Your task to perform on an android device: open app "Reddit" (install if not already installed) and go to login screen Image 0: 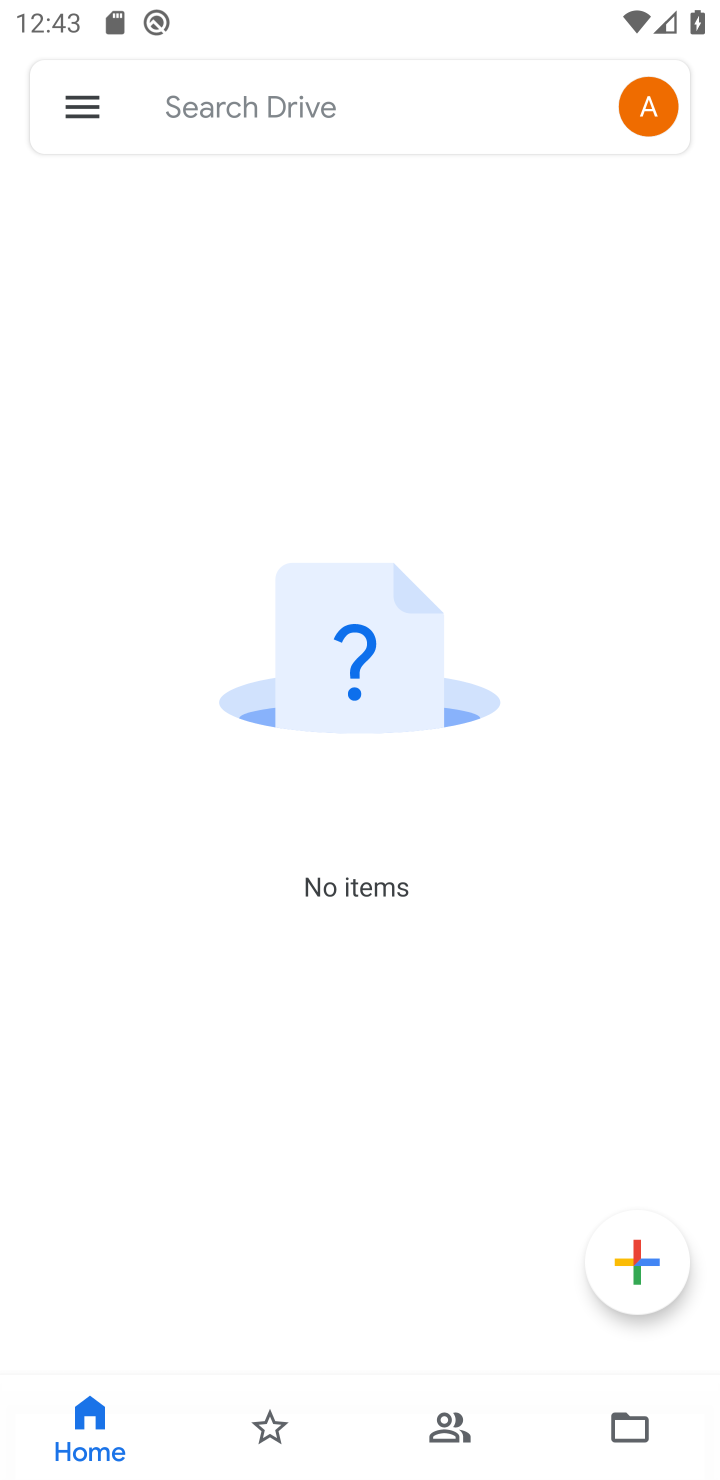
Step 0: press home button
Your task to perform on an android device: open app "Reddit" (install if not already installed) and go to login screen Image 1: 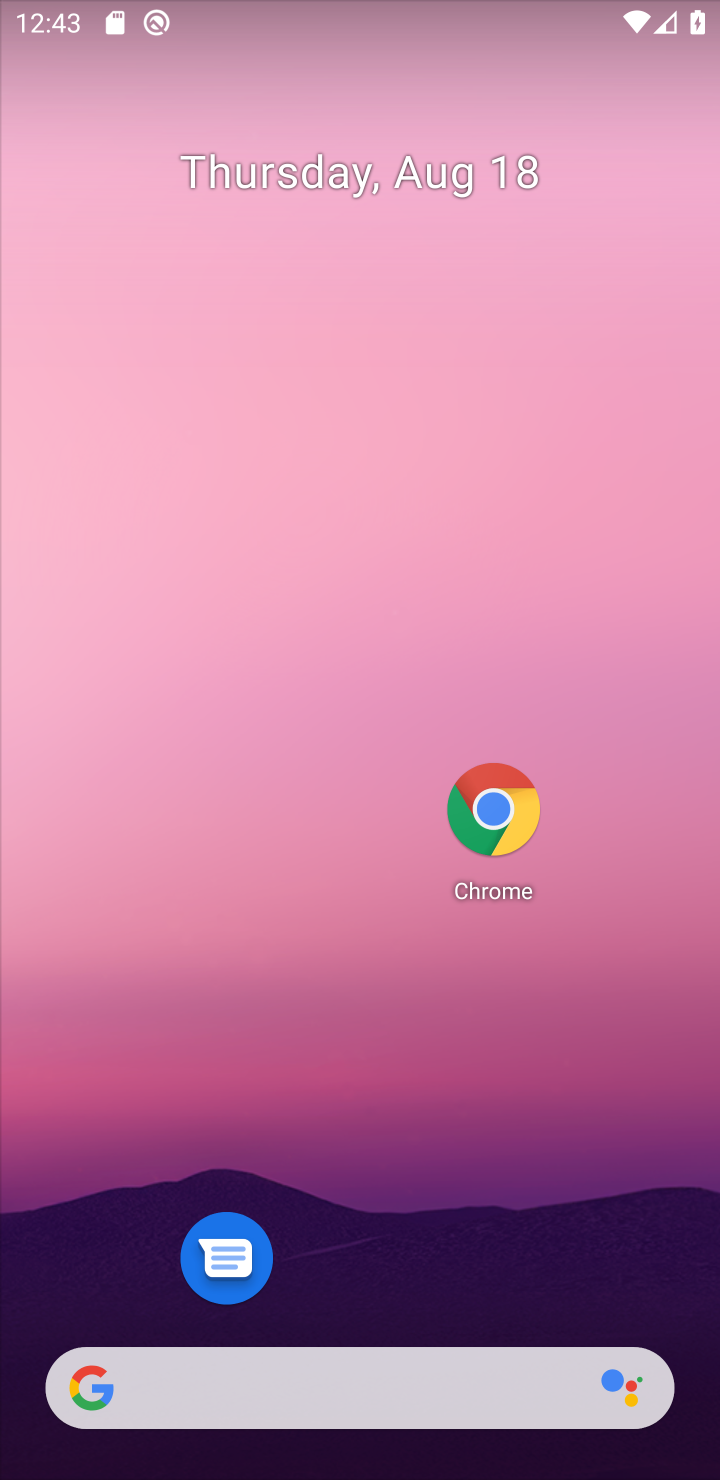
Step 1: drag from (358, 1140) to (374, 231)
Your task to perform on an android device: open app "Reddit" (install if not already installed) and go to login screen Image 2: 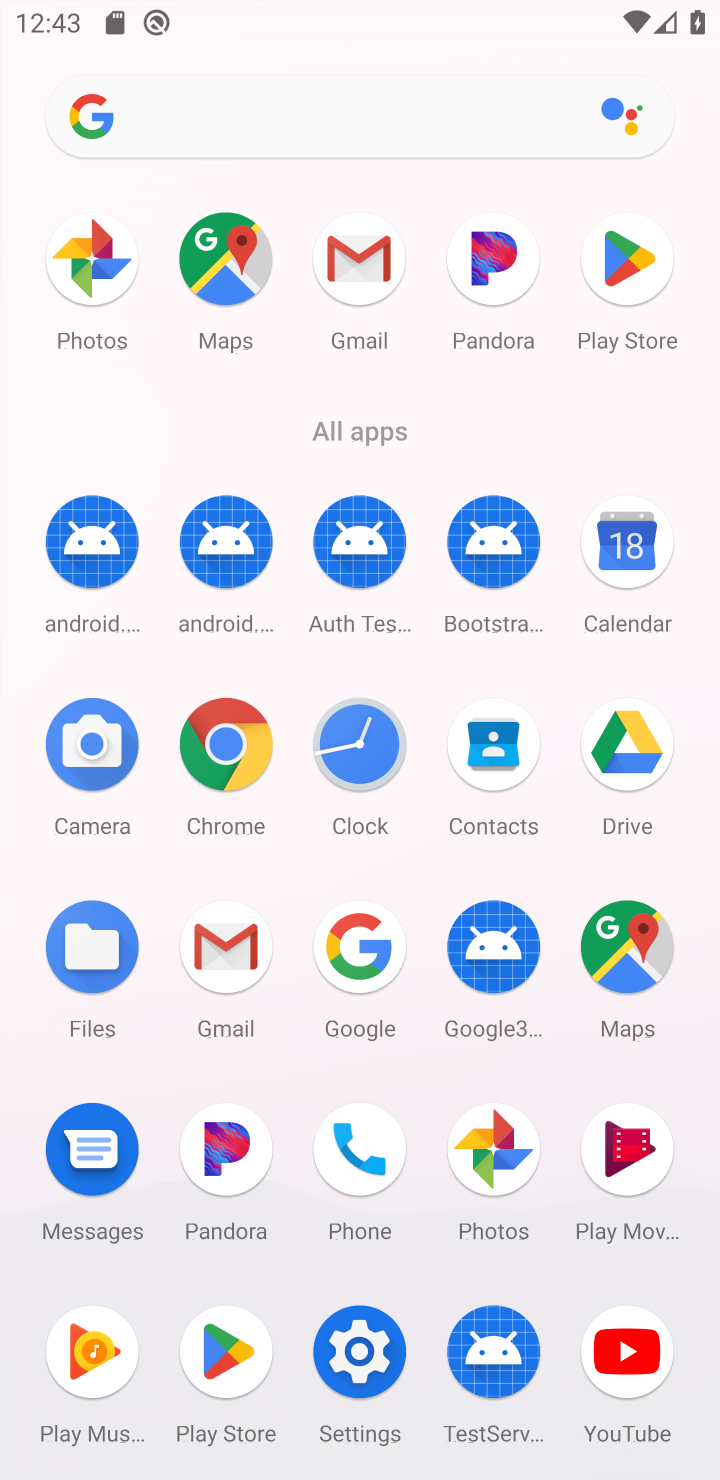
Step 2: click (222, 759)
Your task to perform on an android device: open app "Reddit" (install if not already installed) and go to login screen Image 3: 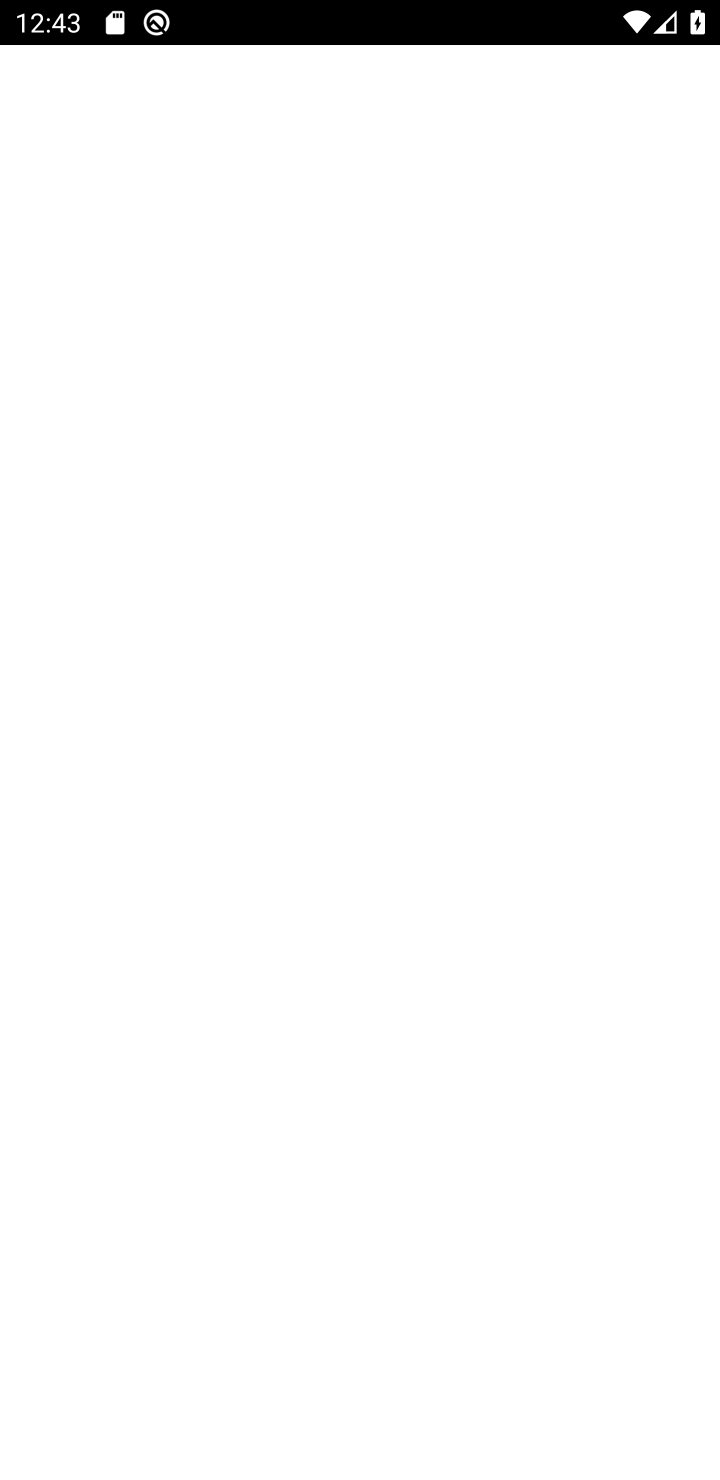
Step 3: press home button
Your task to perform on an android device: open app "Reddit" (install if not already installed) and go to login screen Image 4: 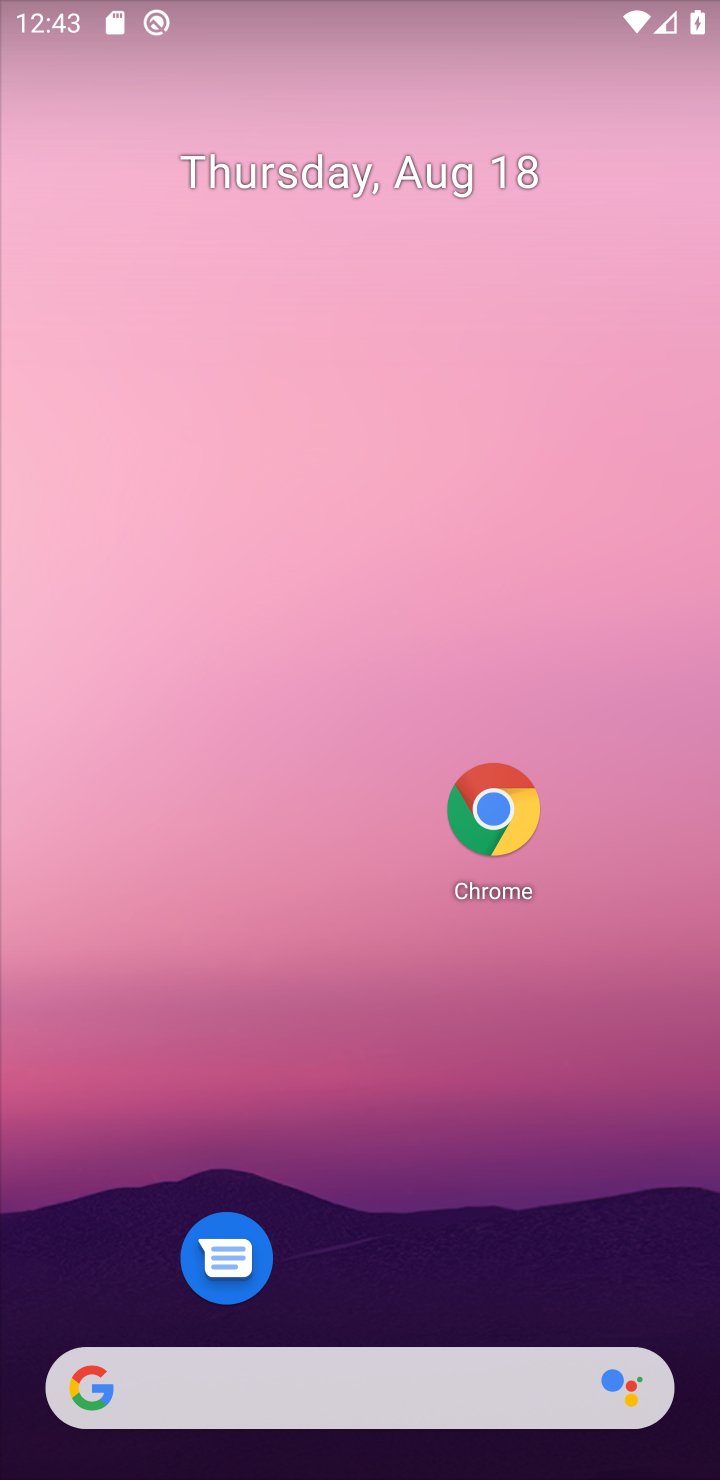
Step 4: drag from (405, 1093) to (402, 188)
Your task to perform on an android device: open app "Reddit" (install if not already installed) and go to login screen Image 5: 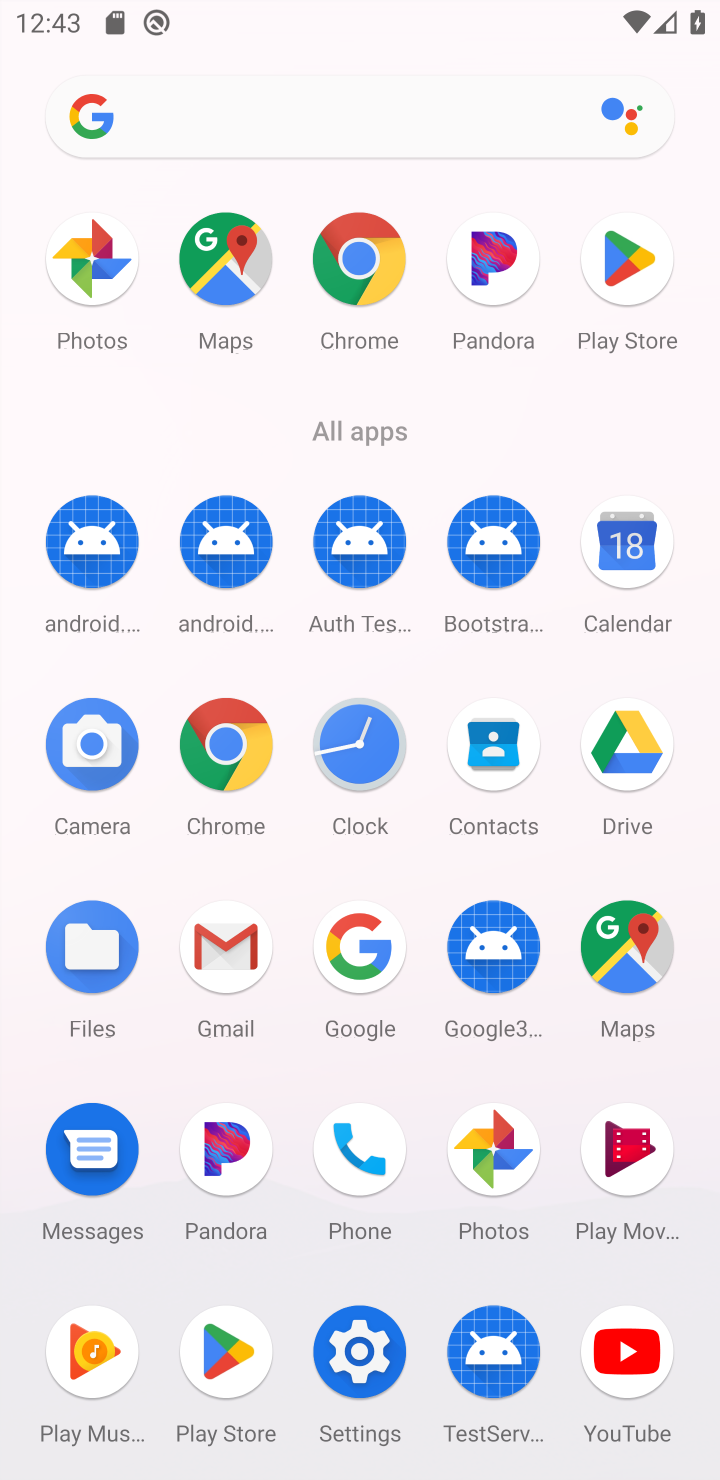
Step 5: click (632, 296)
Your task to perform on an android device: open app "Reddit" (install if not already installed) and go to login screen Image 6: 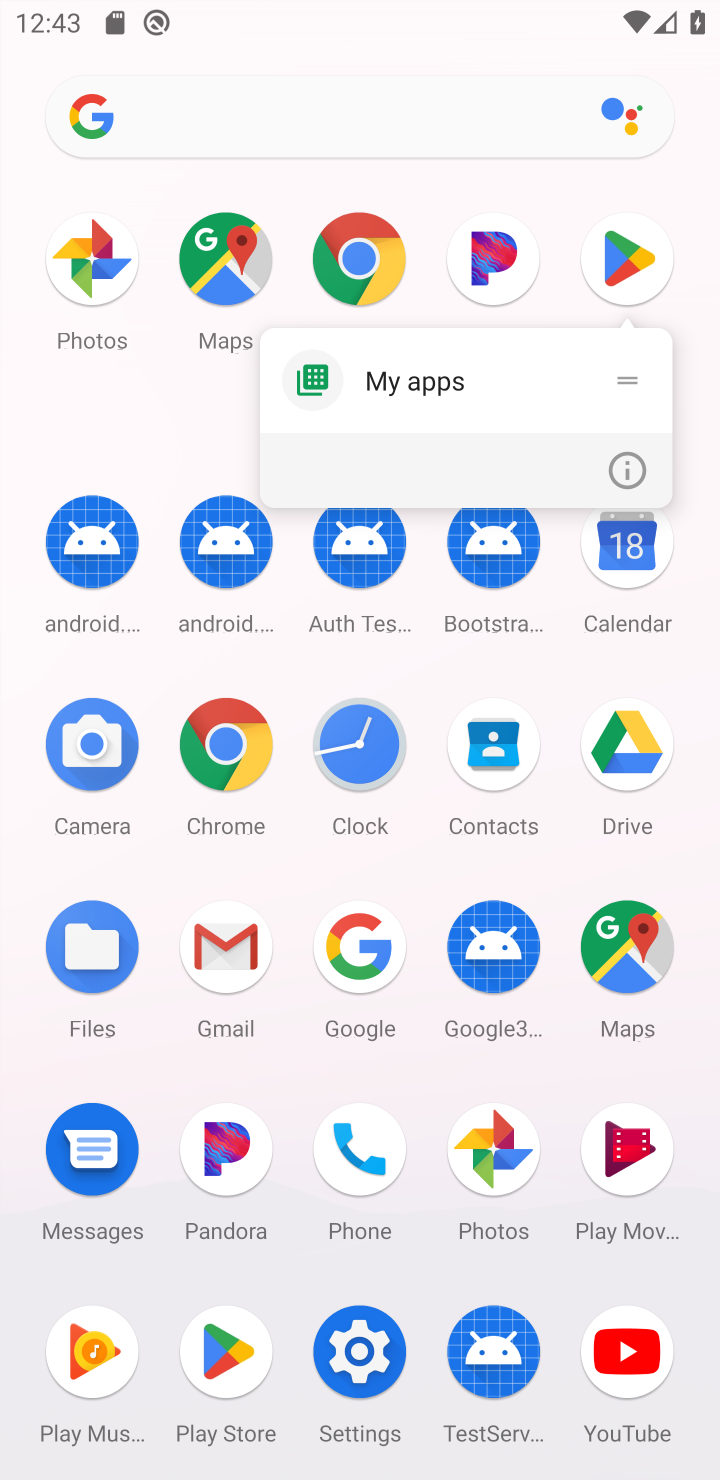
Step 6: click (612, 251)
Your task to perform on an android device: open app "Reddit" (install if not already installed) and go to login screen Image 7: 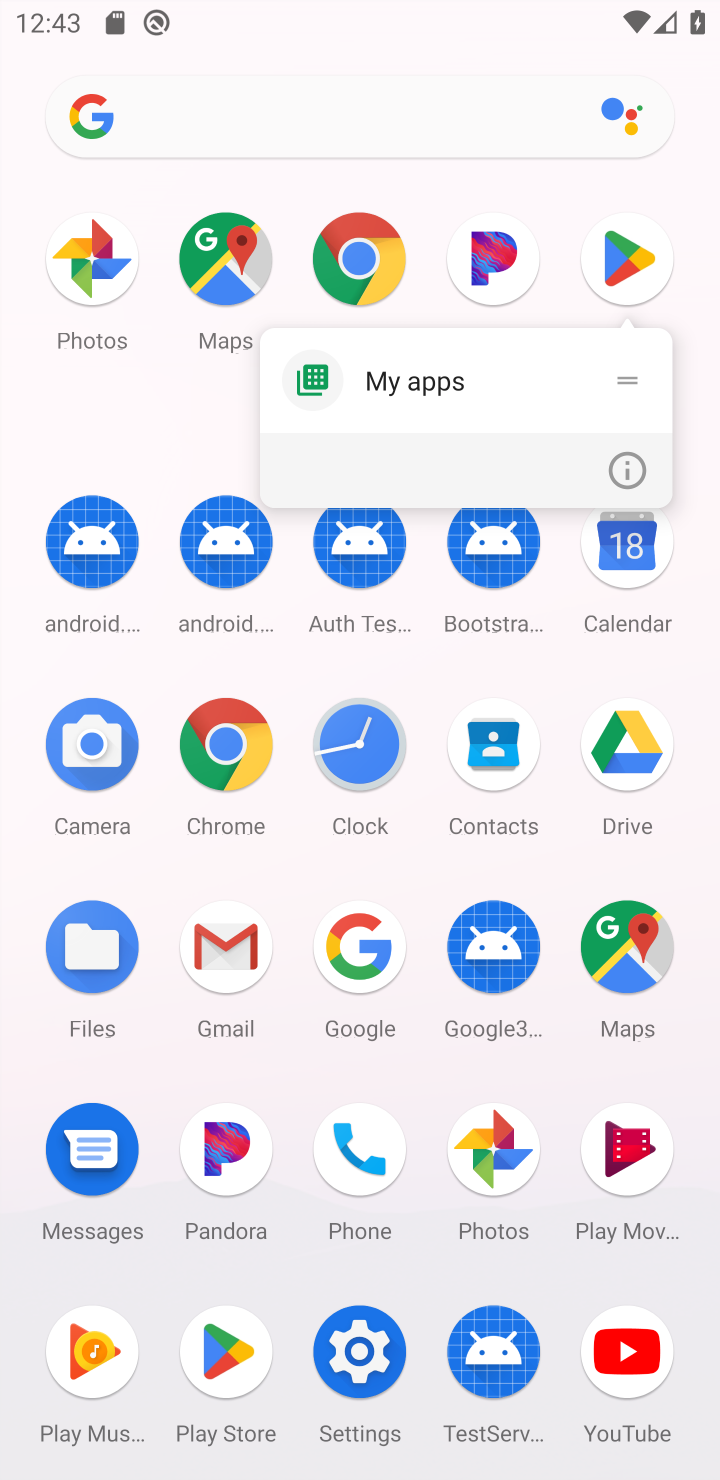
Step 7: click (206, 1355)
Your task to perform on an android device: open app "Reddit" (install if not already installed) and go to login screen Image 8: 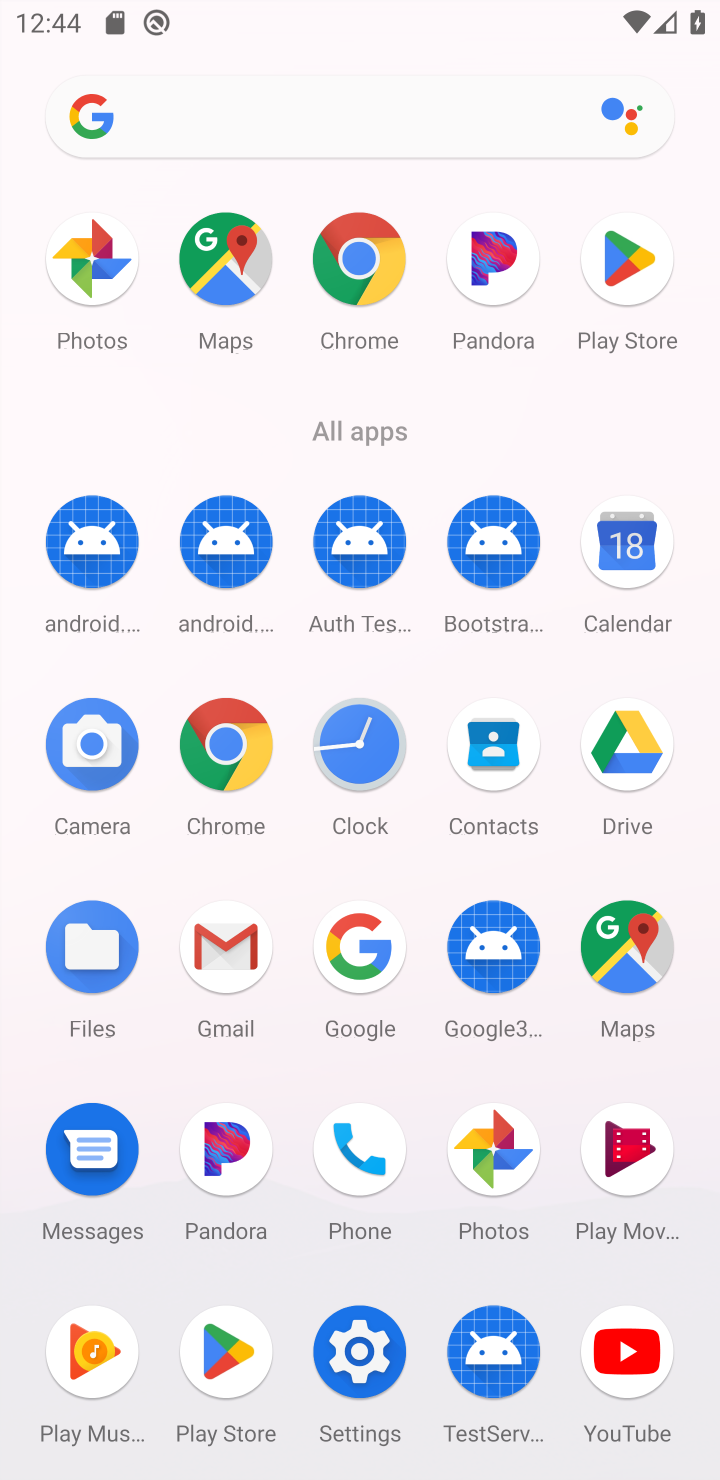
Step 8: click (232, 1348)
Your task to perform on an android device: open app "Reddit" (install if not already installed) and go to login screen Image 9: 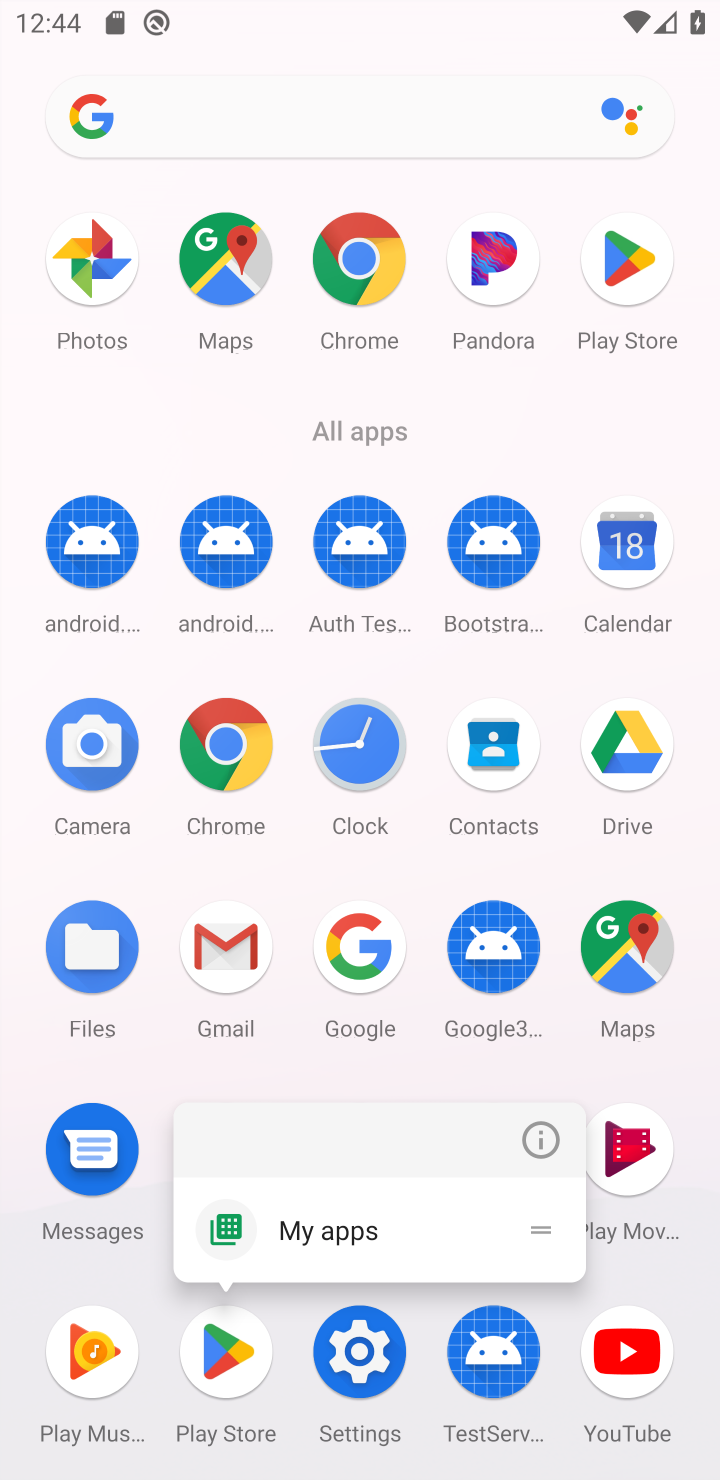
Step 9: click (618, 237)
Your task to perform on an android device: open app "Reddit" (install if not already installed) and go to login screen Image 10: 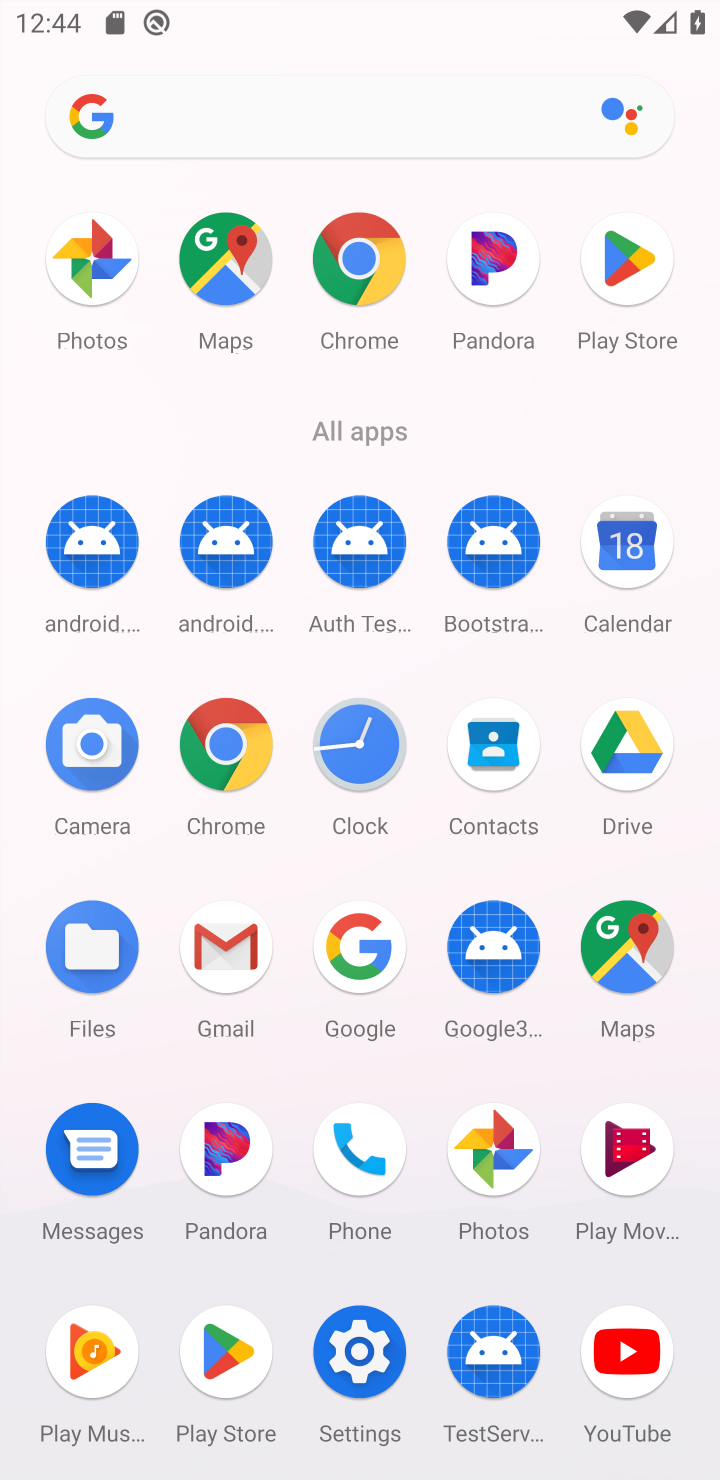
Step 10: click (631, 255)
Your task to perform on an android device: open app "Reddit" (install if not already installed) and go to login screen Image 11: 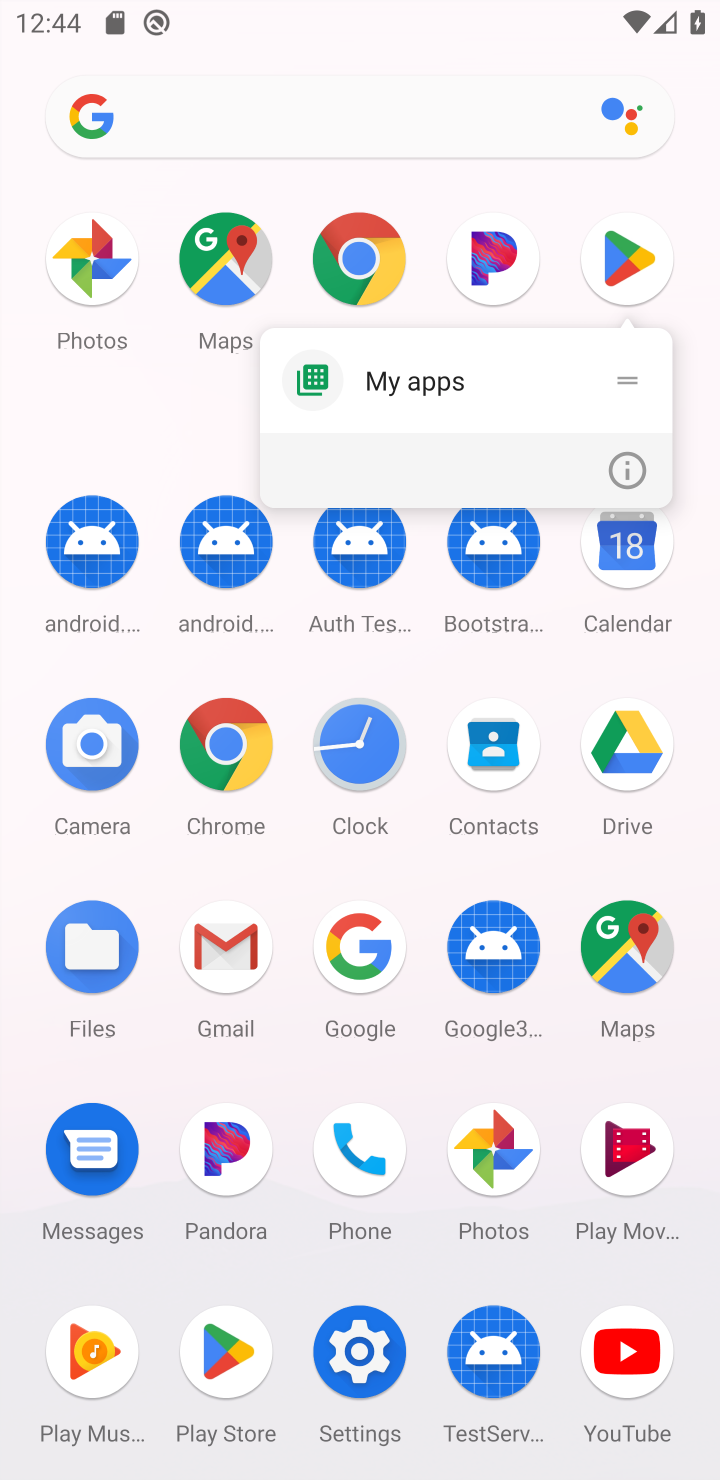
Step 11: click (639, 295)
Your task to perform on an android device: open app "Reddit" (install if not already installed) and go to login screen Image 12: 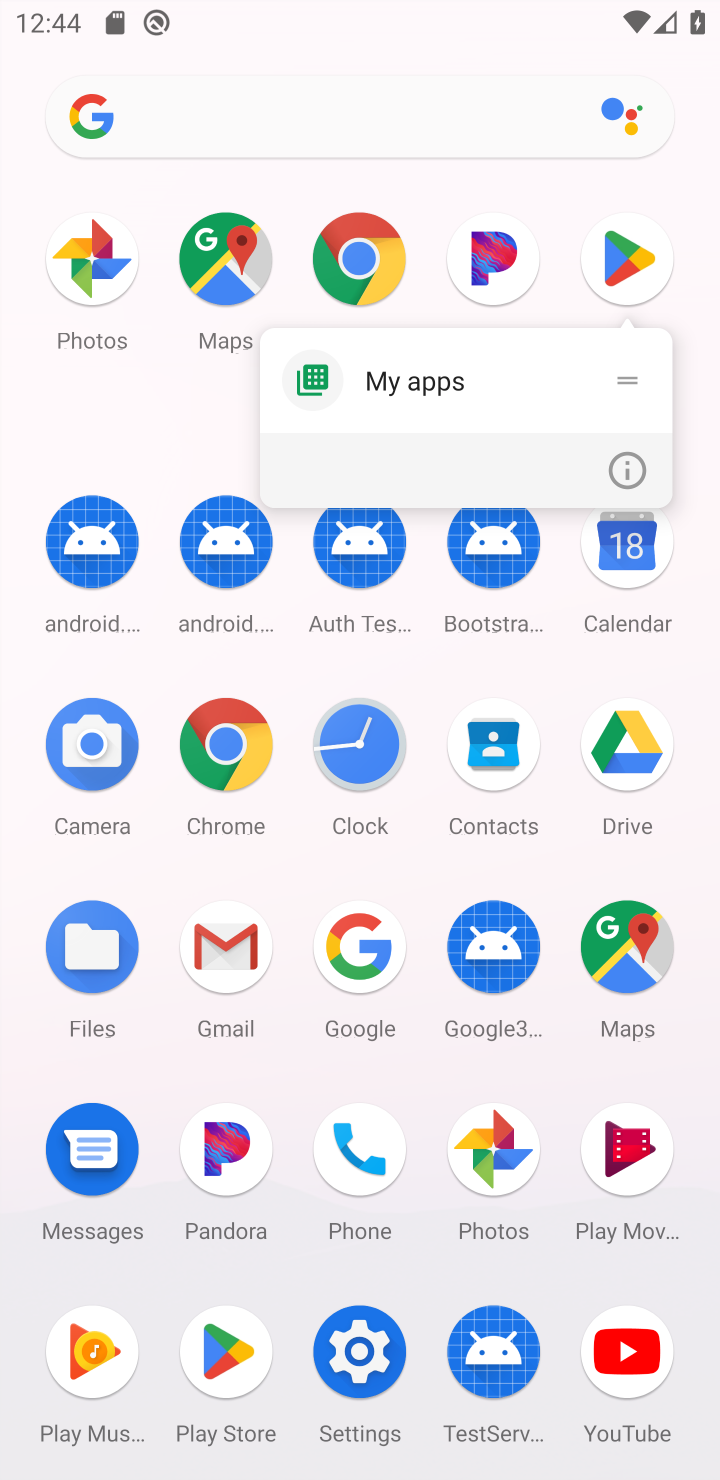
Step 12: click (639, 285)
Your task to perform on an android device: open app "Reddit" (install if not already installed) and go to login screen Image 13: 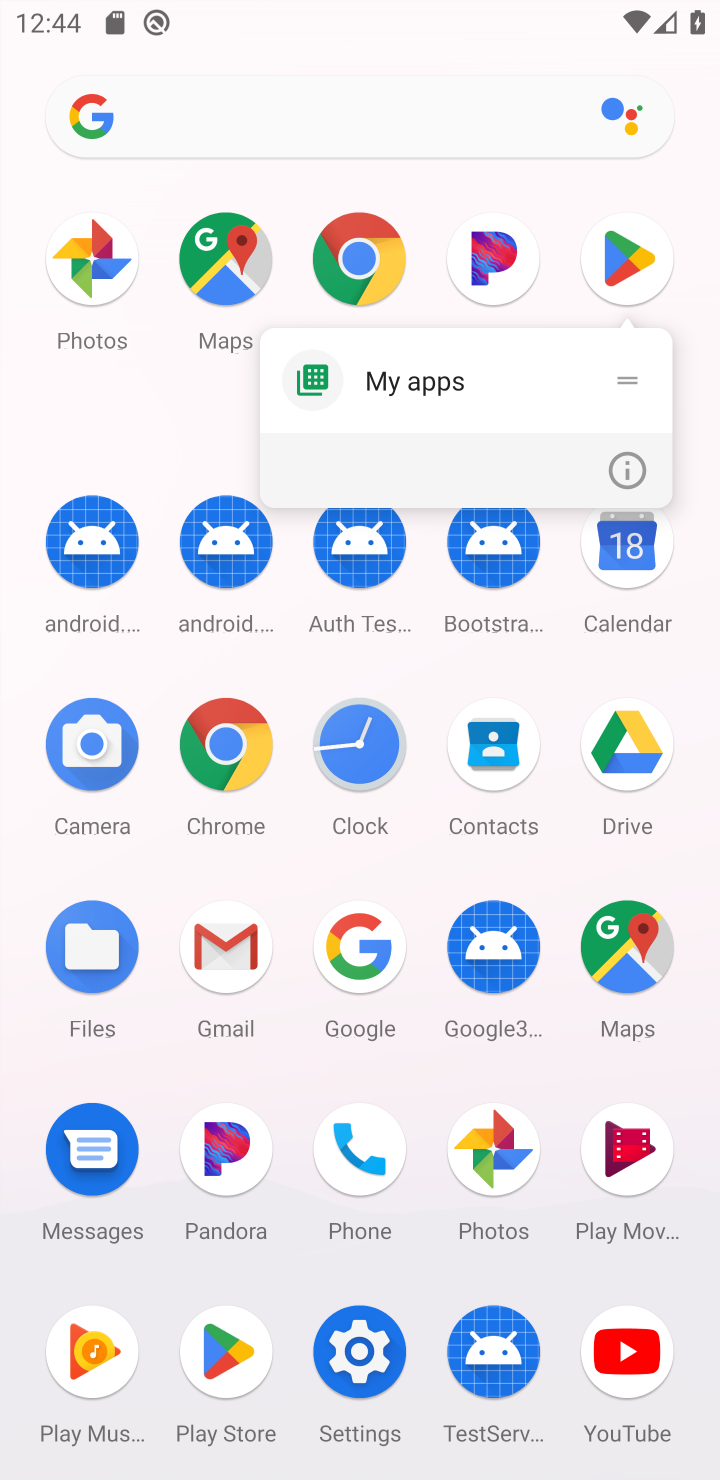
Step 13: click (636, 245)
Your task to perform on an android device: open app "Reddit" (install if not already installed) and go to login screen Image 14: 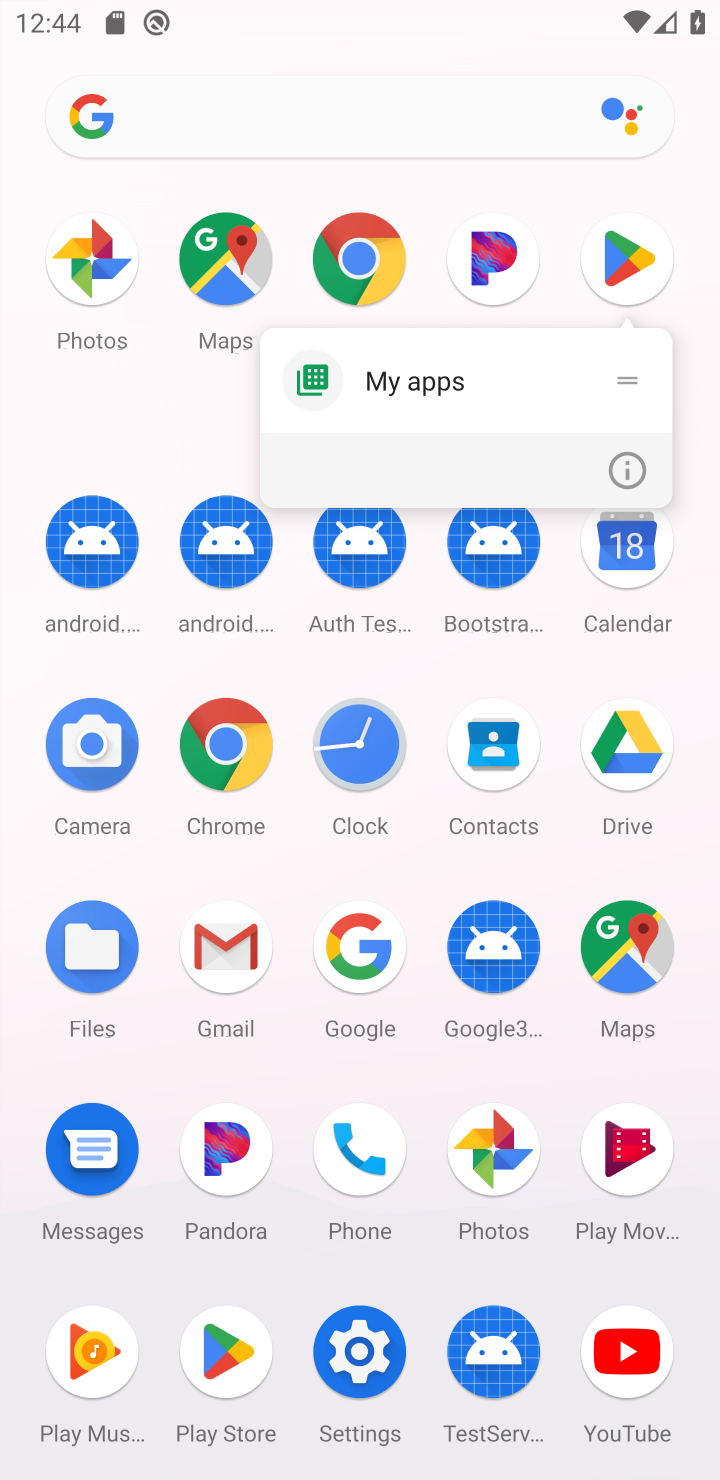
Step 14: click (619, 229)
Your task to perform on an android device: open app "Reddit" (install if not already installed) and go to login screen Image 15: 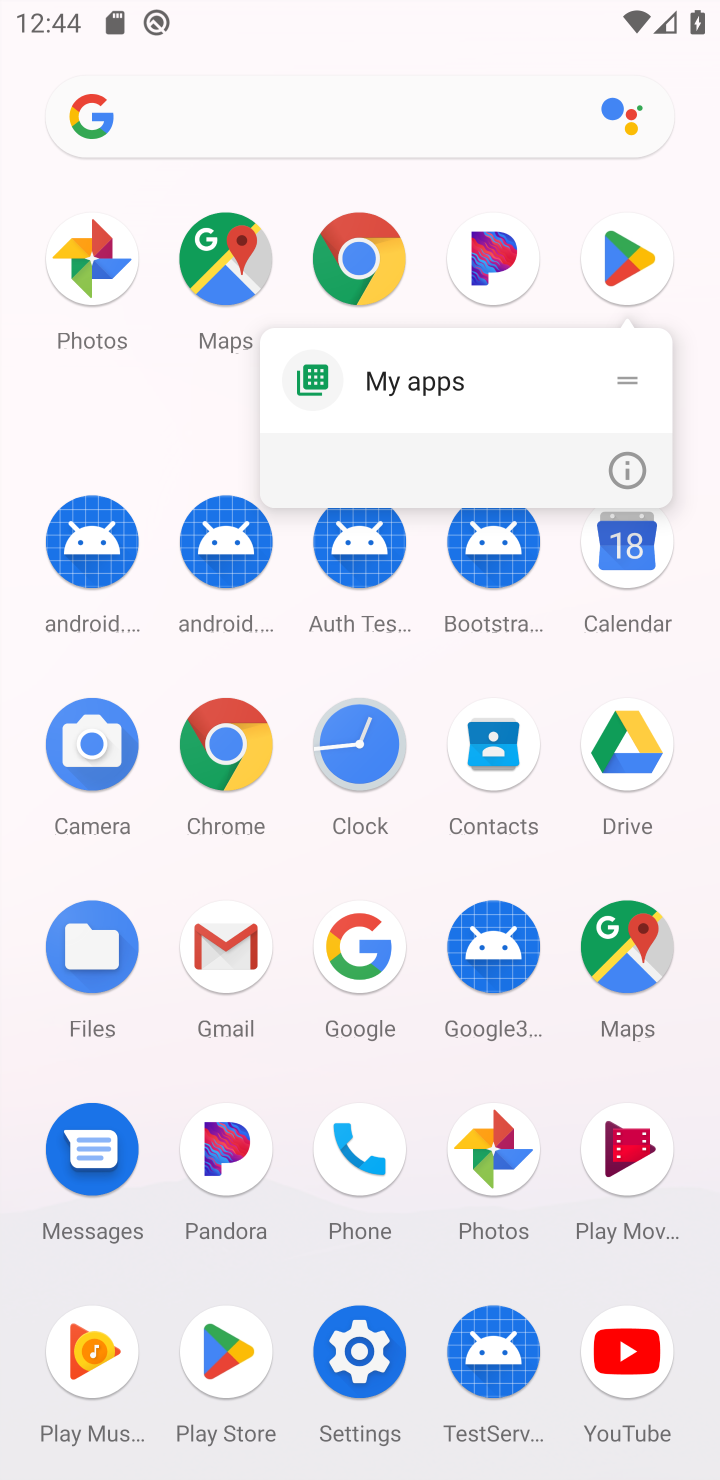
Step 15: click (226, 1357)
Your task to perform on an android device: open app "Reddit" (install if not already installed) and go to login screen Image 16: 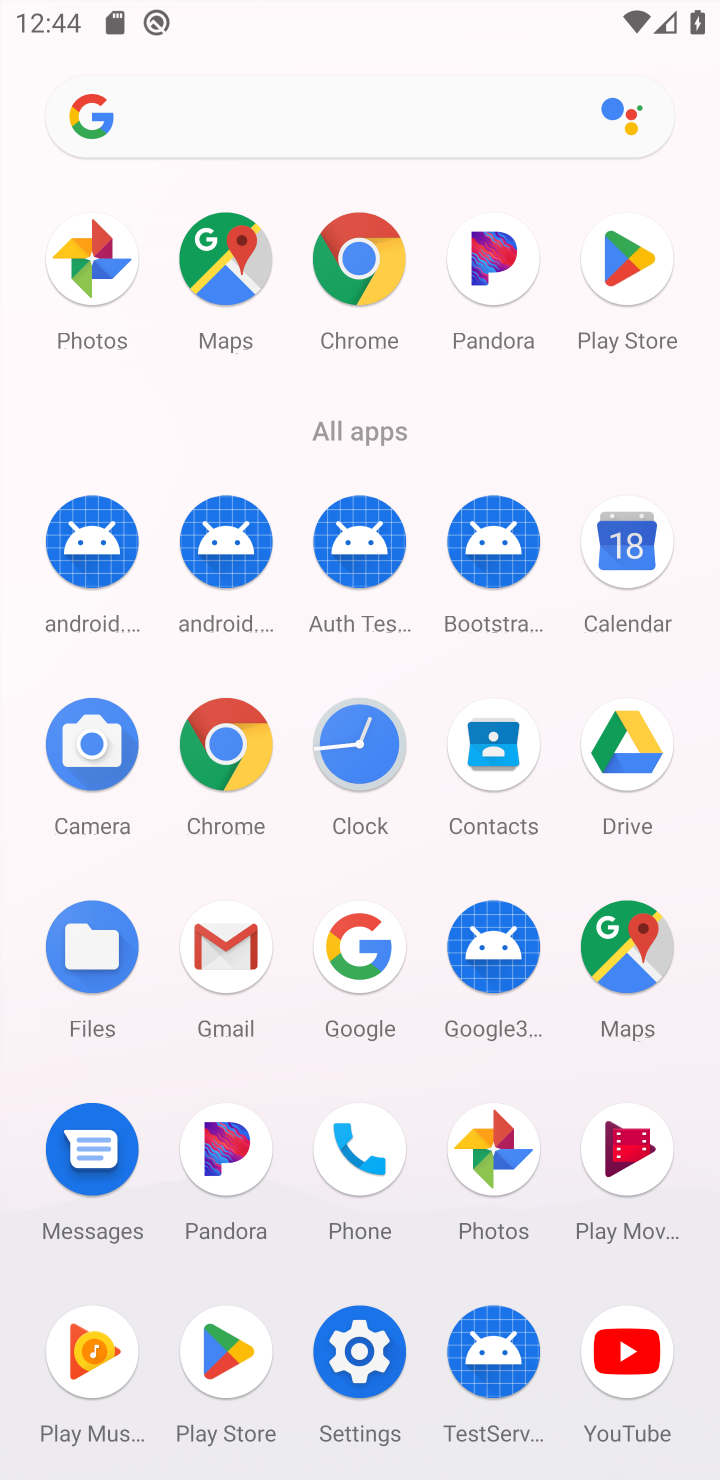
Step 16: drag from (326, 1168) to (401, 432)
Your task to perform on an android device: open app "Reddit" (install if not already installed) and go to login screen Image 17: 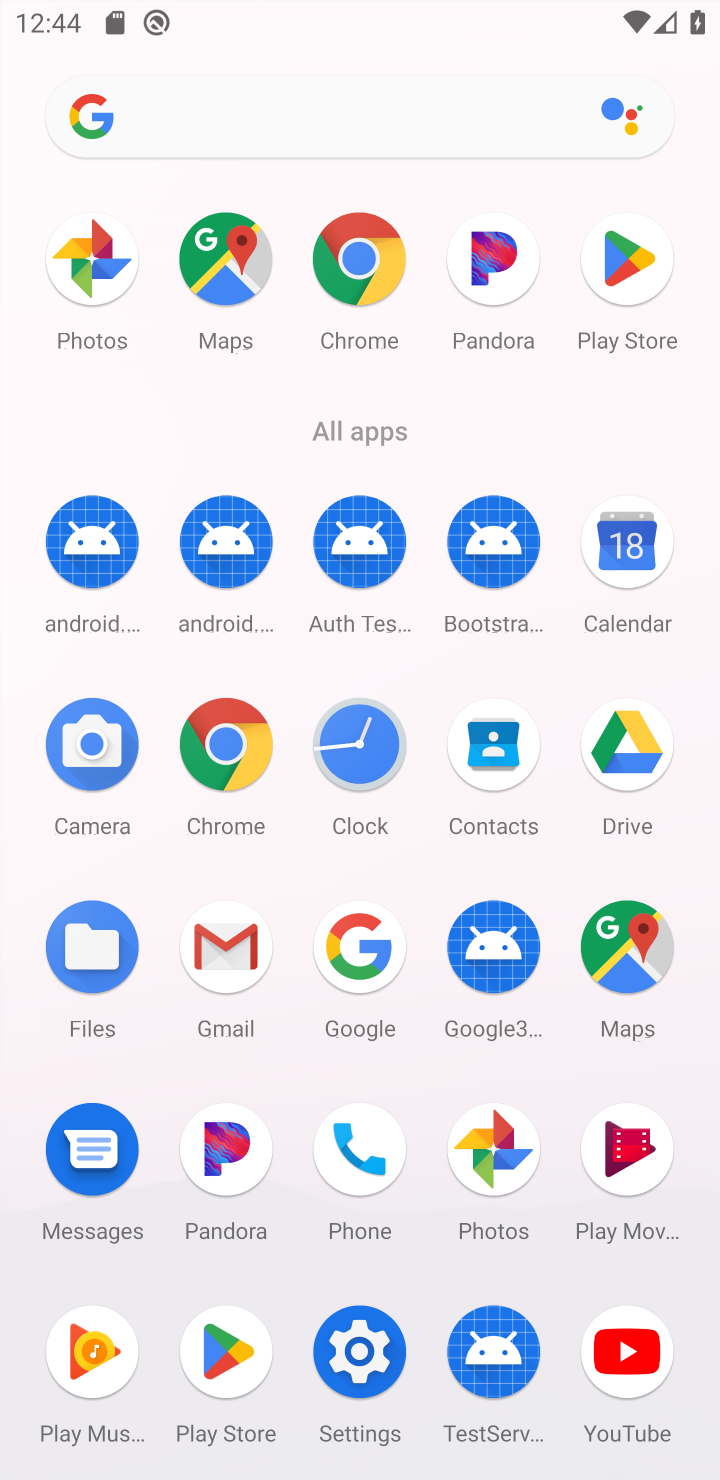
Step 17: click (256, 1280)
Your task to perform on an android device: open app "Reddit" (install if not already installed) and go to login screen Image 18: 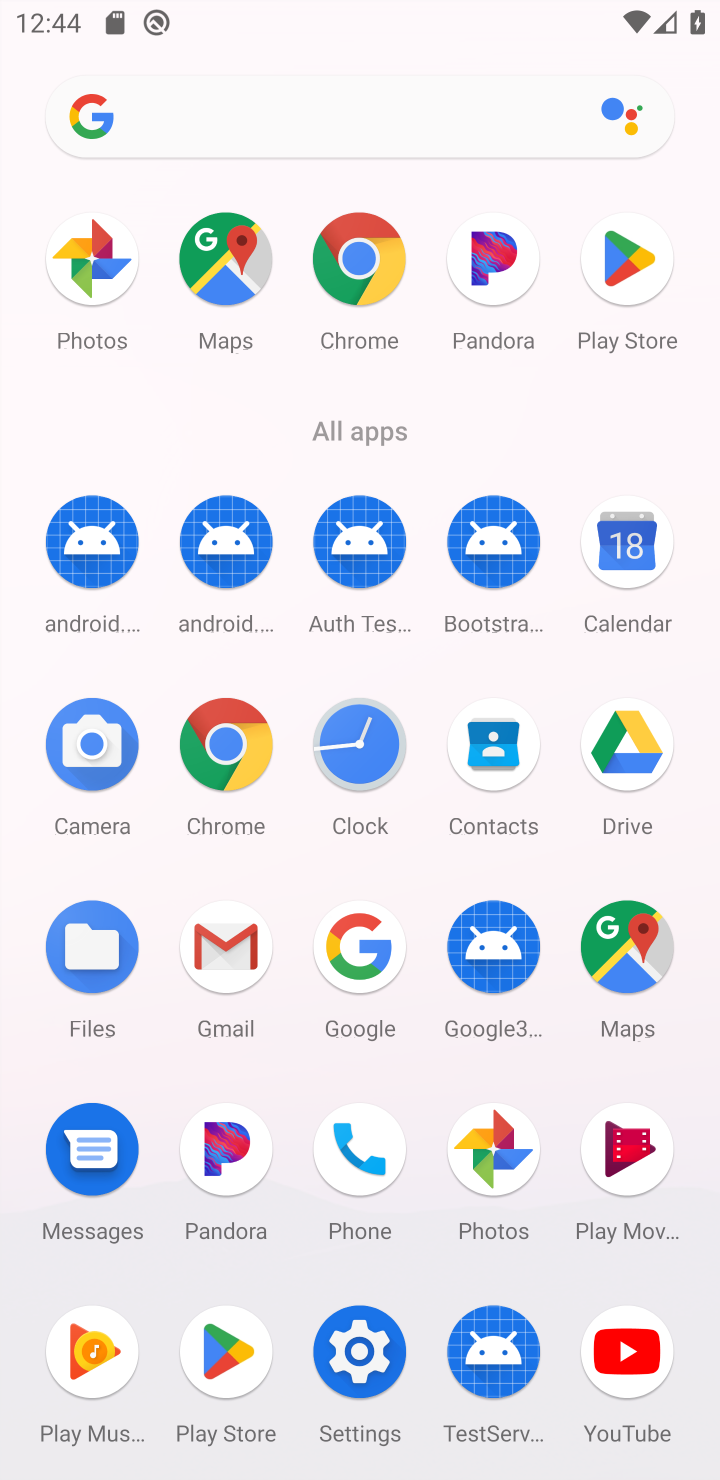
Step 18: click (233, 1337)
Your task to perform on an android device: open app "Reddit" (install if not already installed) and go to login screen Image 19: 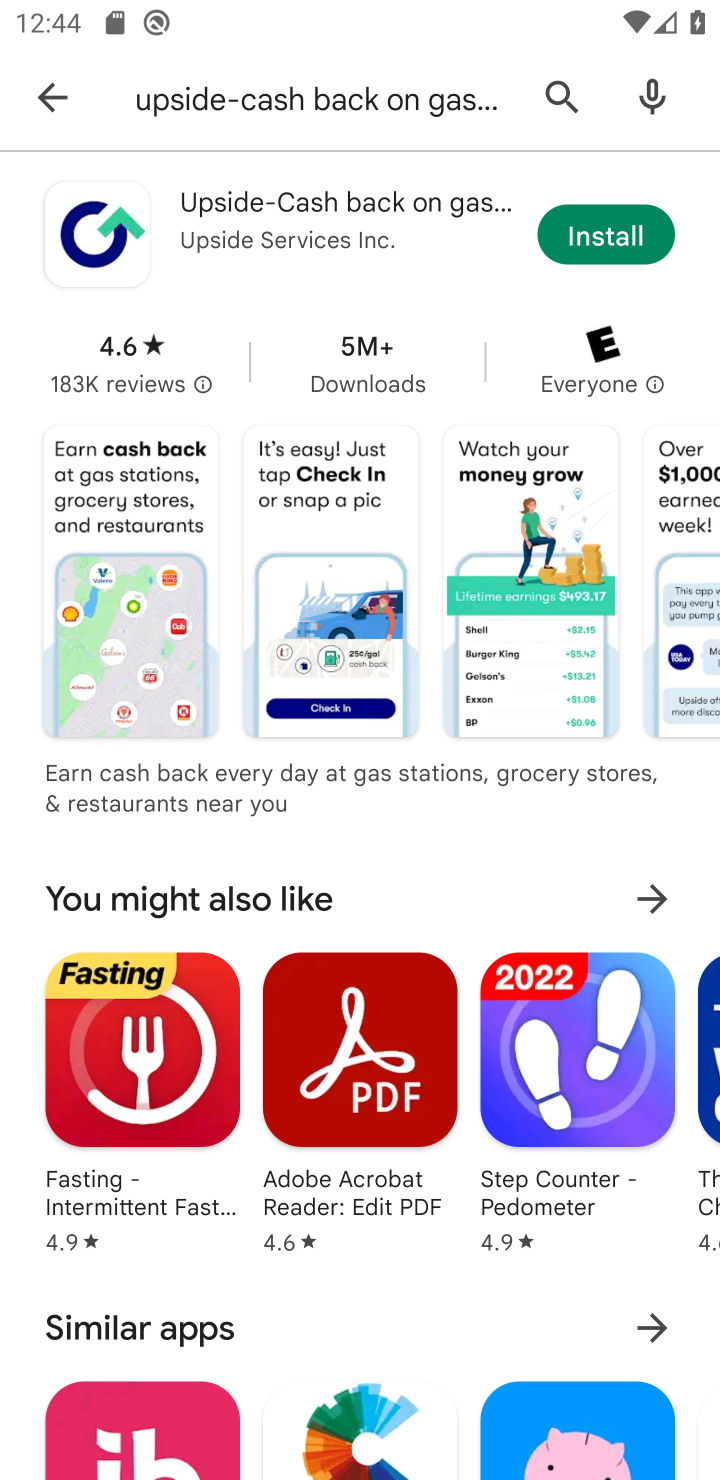
Step 19: click (42, 95)
Your task to perform on an android device: open app "Reddit" (install if not already installed) and go to login screen Image 20: 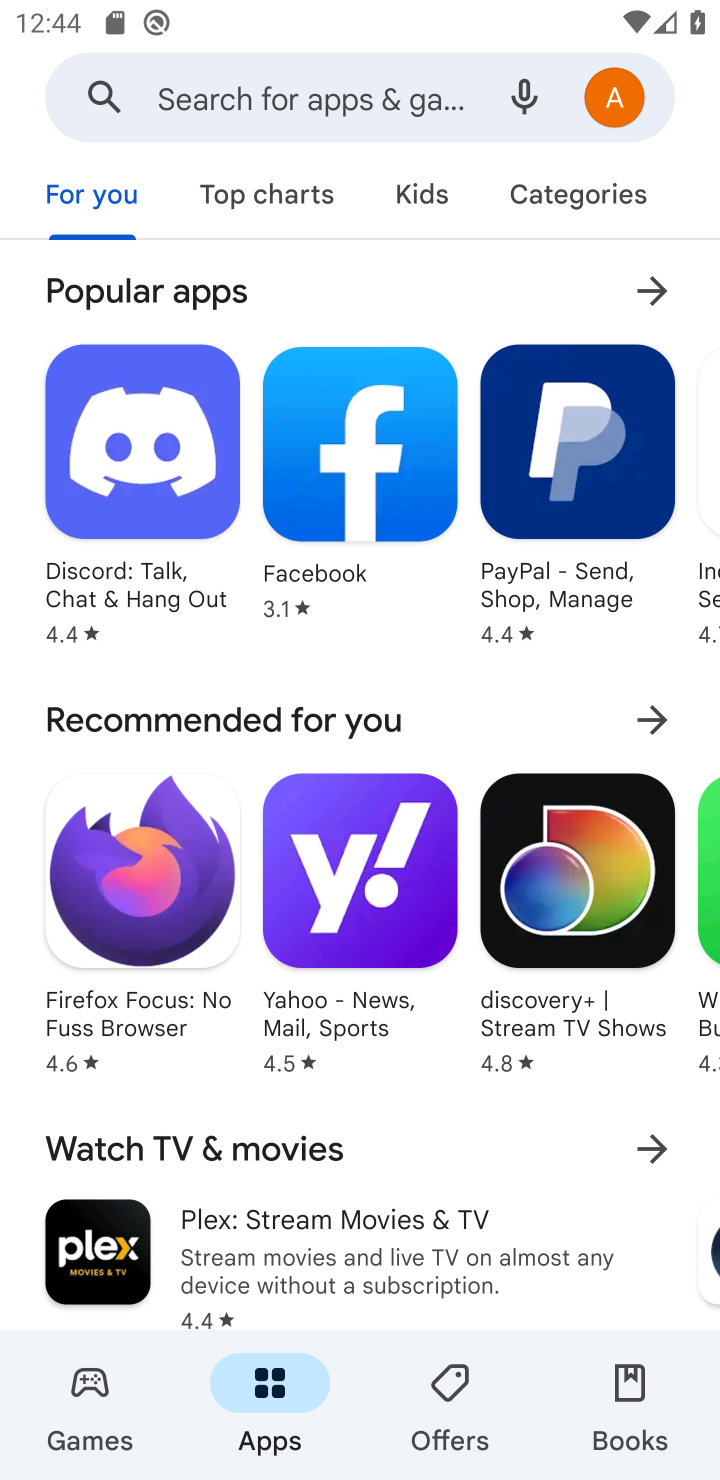
Step 20: click (345, 79)
Your task to perform on an android device: open app "Reddit" (install if not already installed) and go to login screen Image 21: 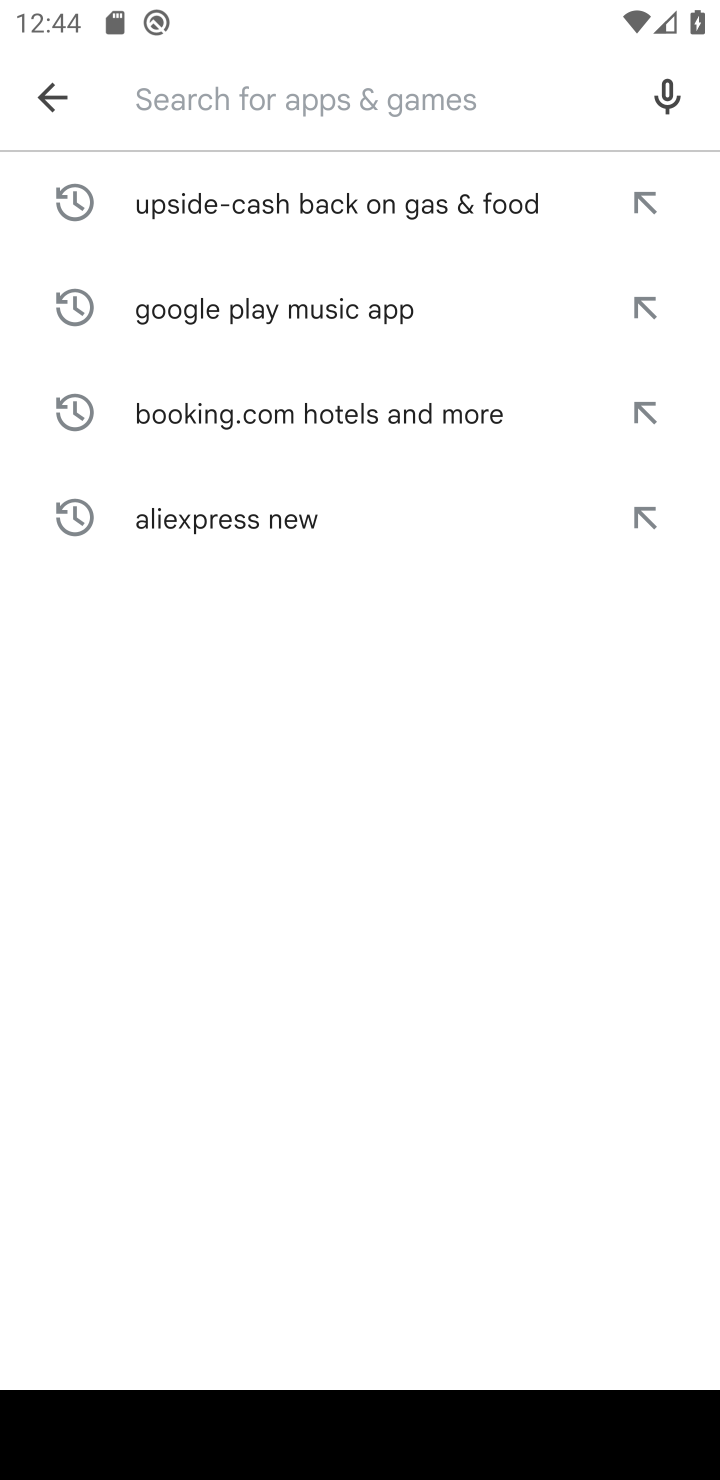
Step 21: type "Reddit "
Your task to perform on an android device: open app "Reddit" (install if not already installed) and go to login screen Image 22: 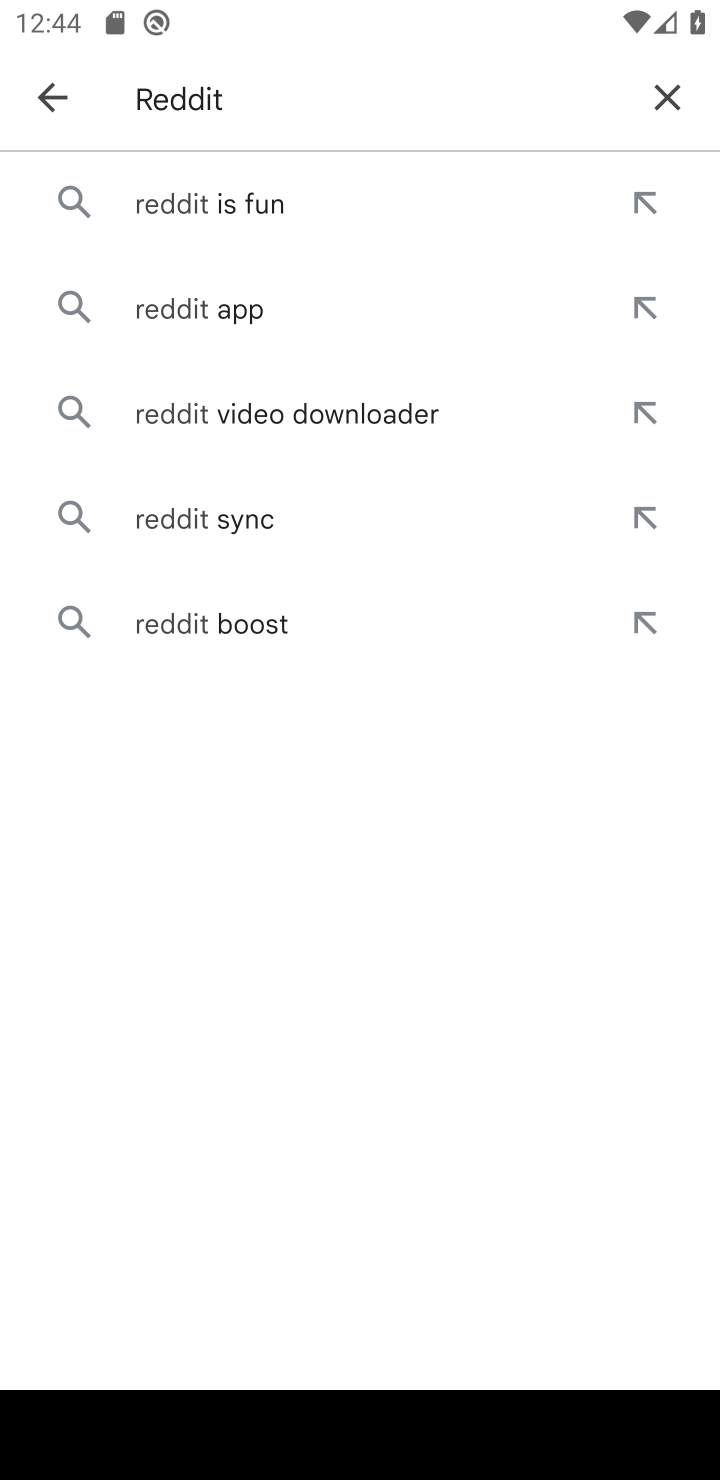
Step 22: click (150, 309)
Your task to perform on an android device: open app "Reddit" (install if not already installed) and go to login screen Image 23: 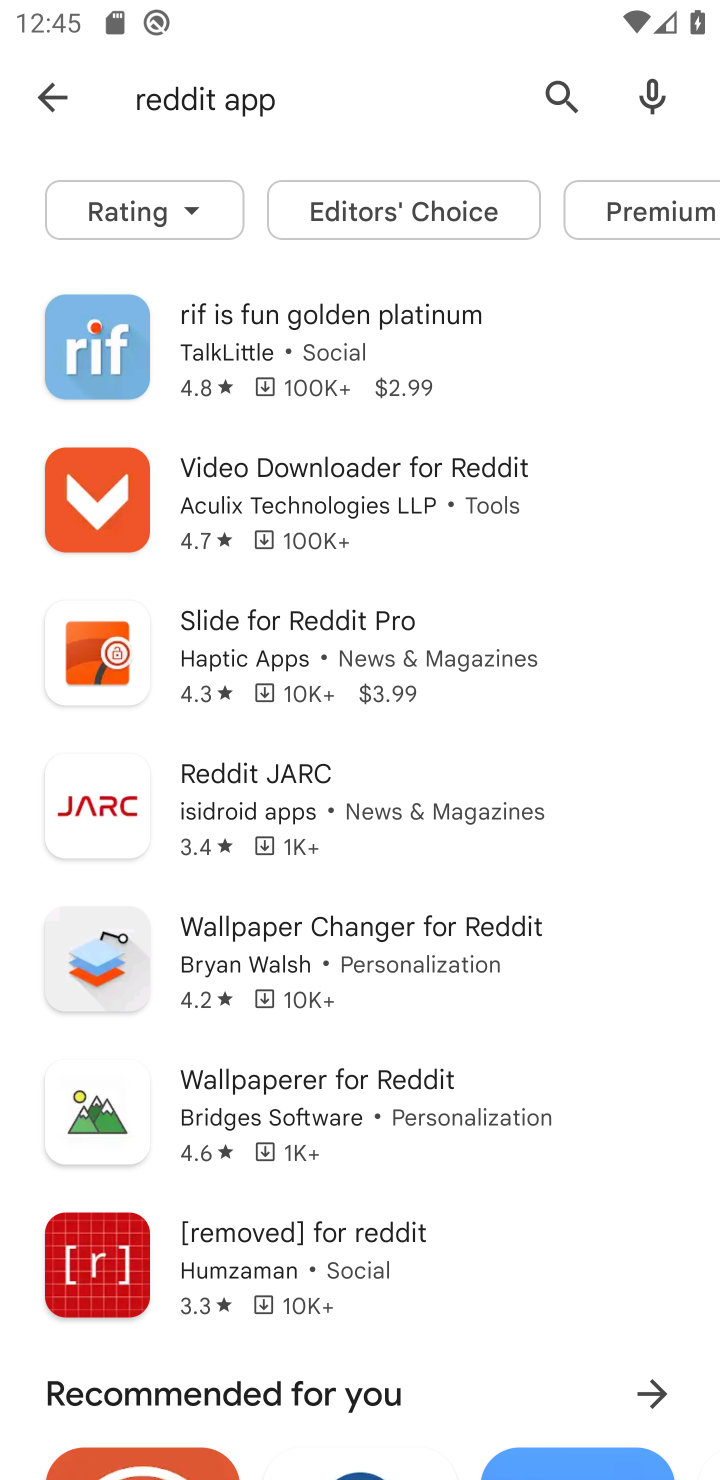
Step 23: drag from (419, 1347) to (489, 710)
Your task to perform on an android device: open app "Reddit" (install if not already installed) and go to login screen Image 24: 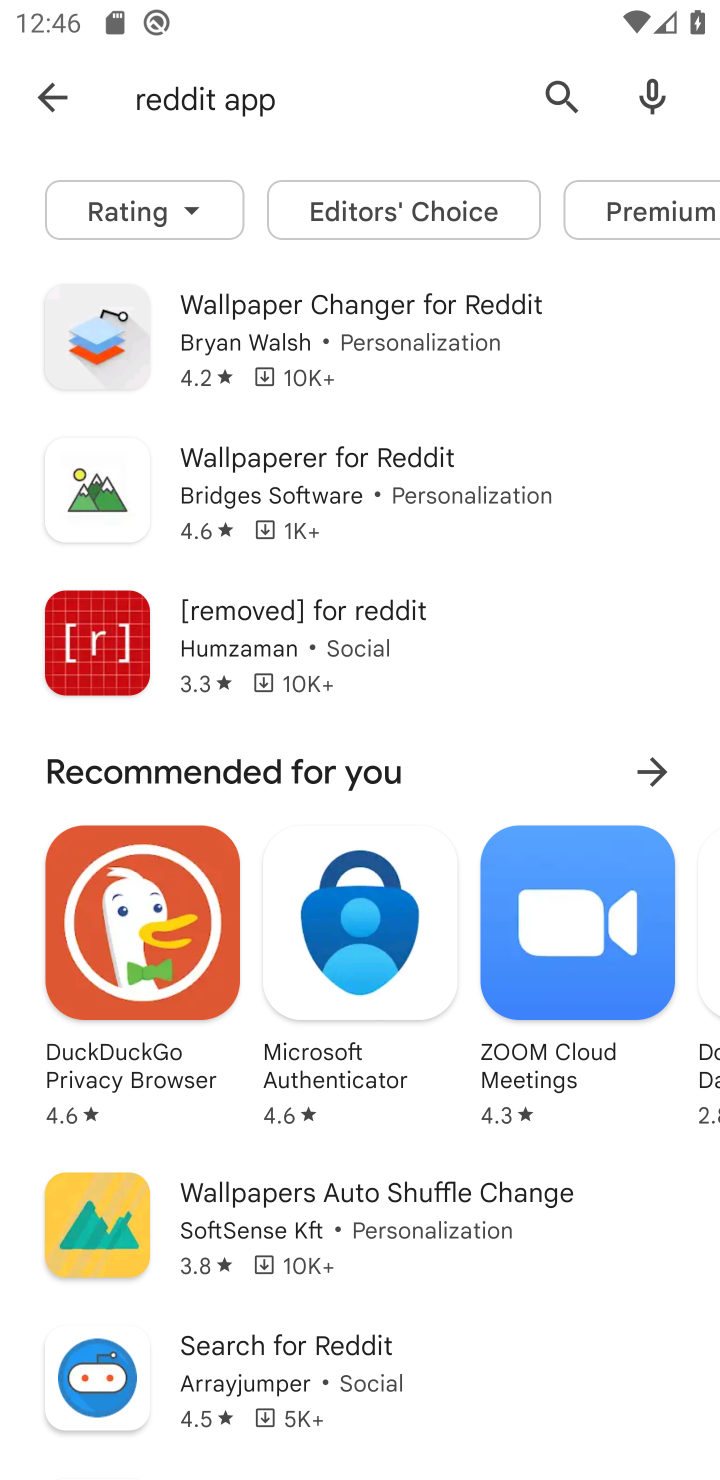
Step 24: drag from (356, 372) to (411, 563)
Your task to perform on an android device: open app "Reddit" (install if not already installed) and go to login screen Image 25: 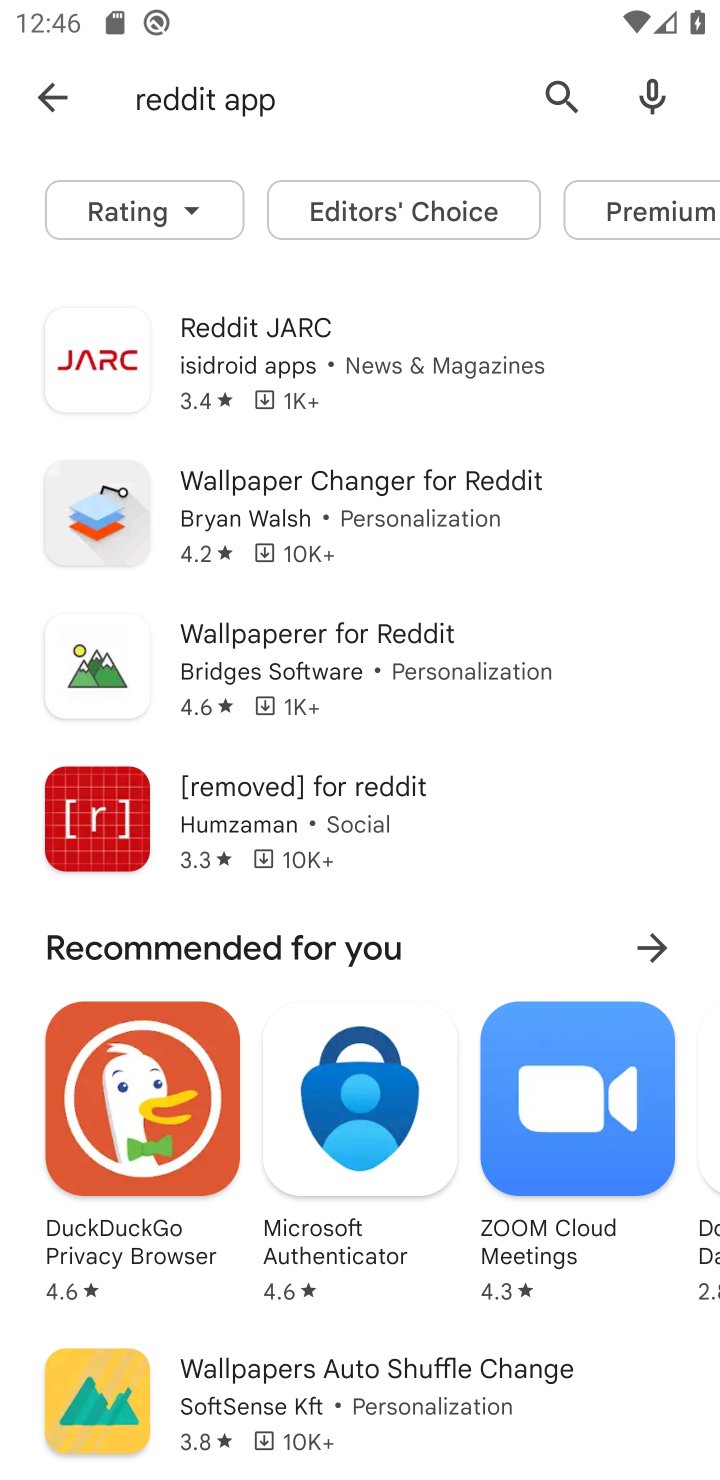
Step 25: click (344, 757)
Your task to perform on an android device: open app "Reddit" (install if not already installed) and go to login screen Image 26: 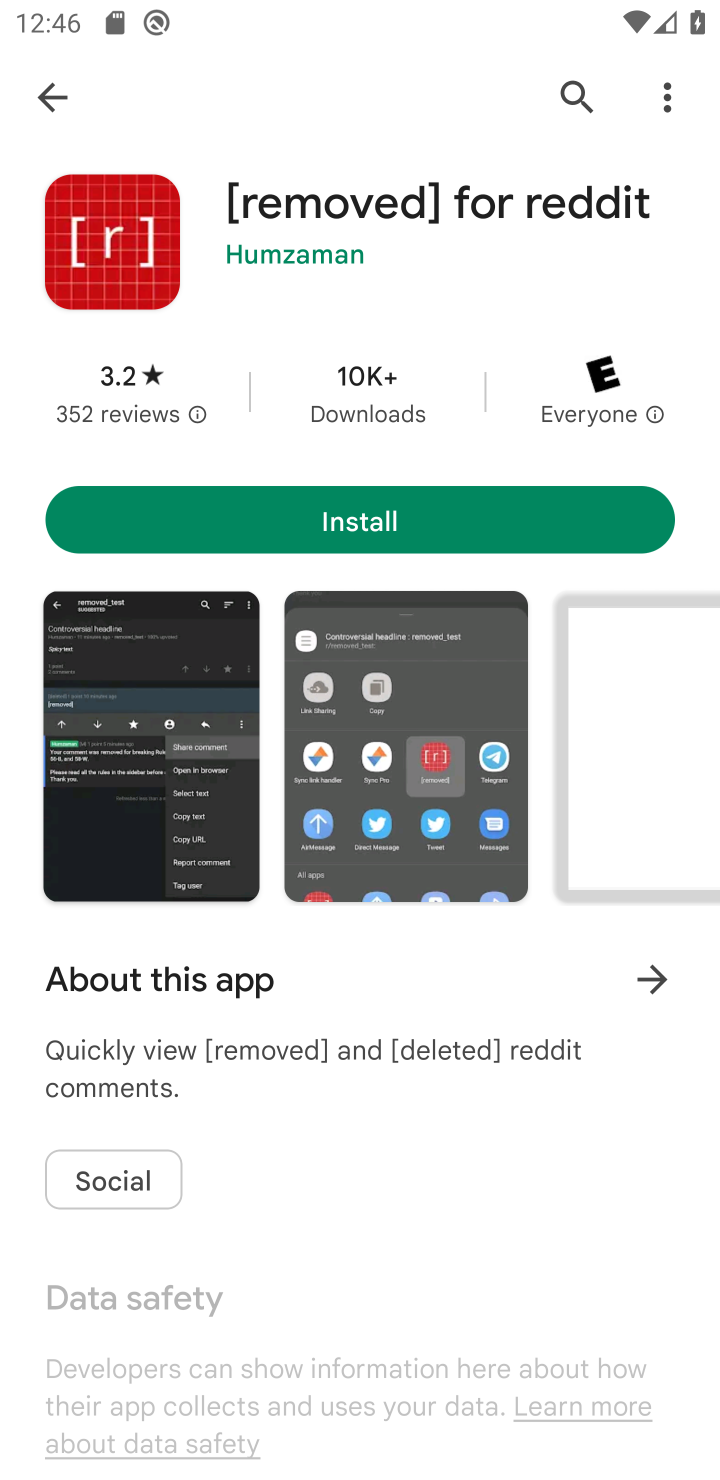
Step 26: click (363, 324)
Your task to perform on an android device: open app "Reddit" (install if not already installed) and go to login screen Image 27: 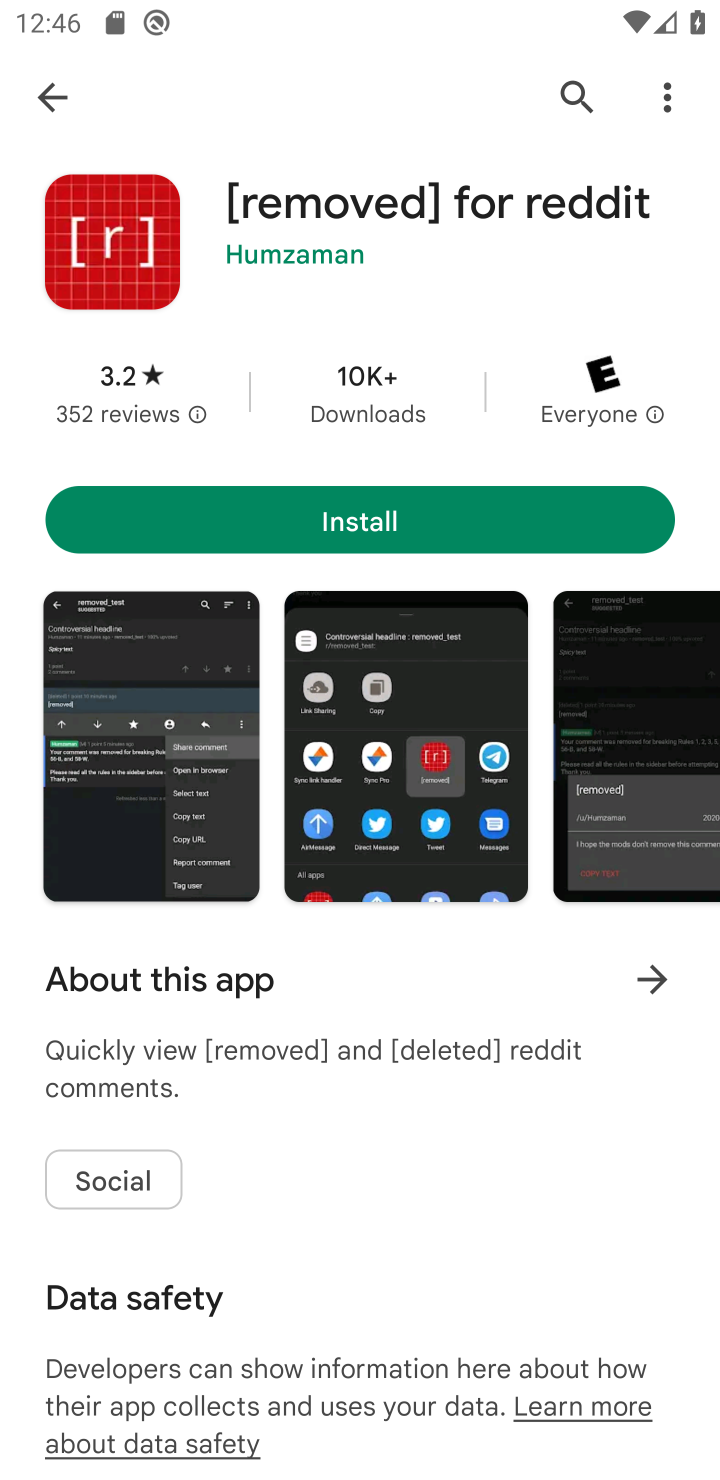
Step 27: click (49, 75)
Your task to perform on an android device: open app "Reddit" (install if not already installed) and go to login screen Image 28: 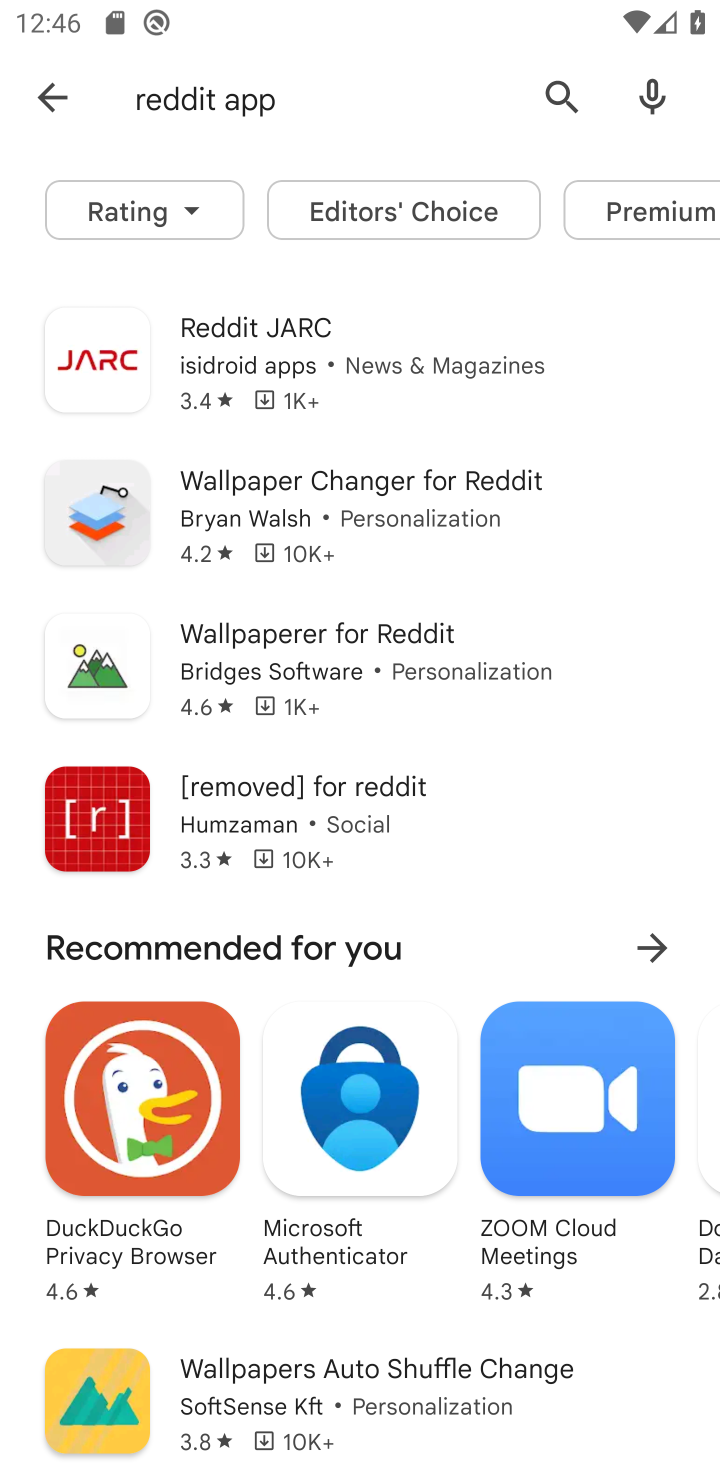
Step 28: click (267, 356)
Your task to perform on an android device: open app "Reddit" (install if not already installed) and go to login screen Image 29: 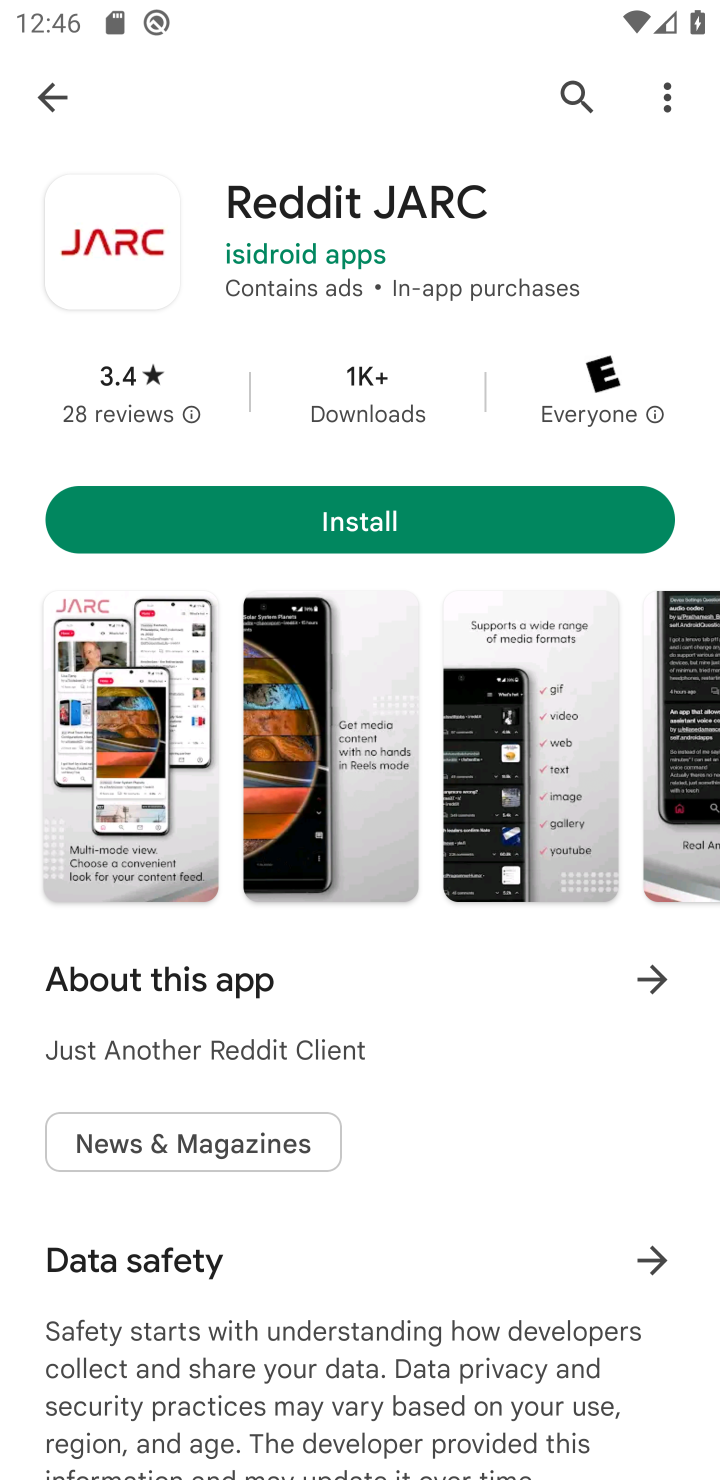
Step 29: click (351, 497)
Your task to perform on an android device: open app "Reddit" (install if not already installed) and go to login screen Image 30: 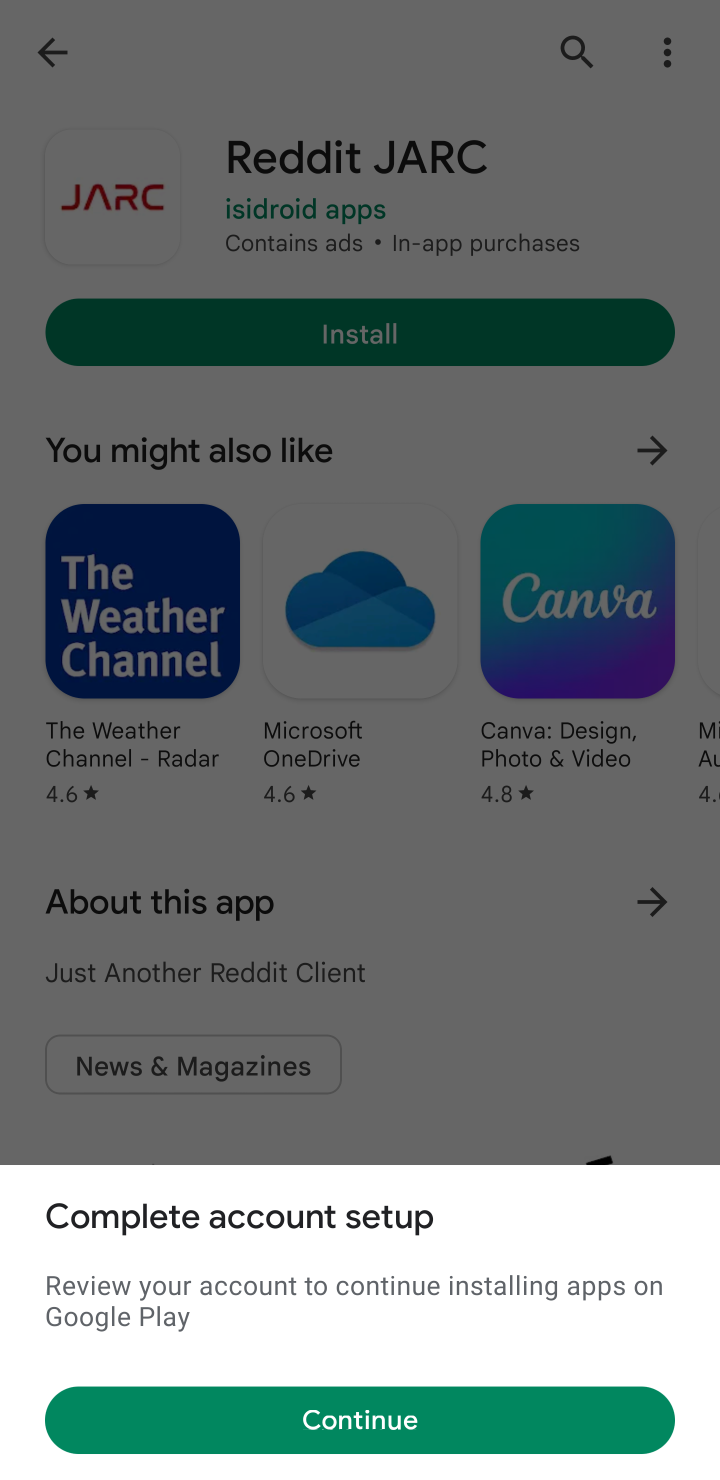
Step 30: task complete